Your task to perform on an android device: Check the news Image 0: 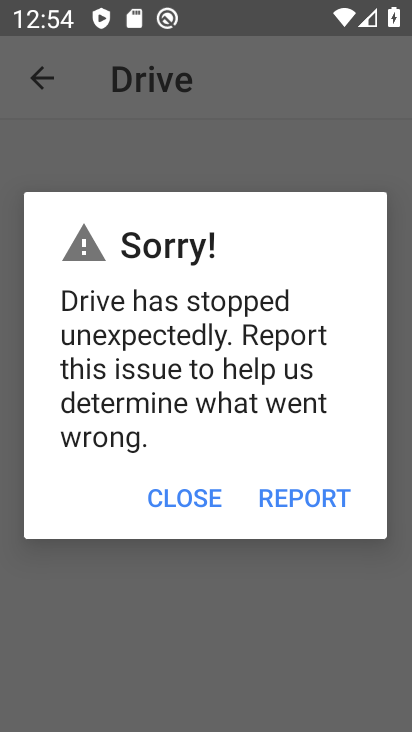
Step 0: click (189, 497)
Your task to perform on an android device: Check the news Image 1: 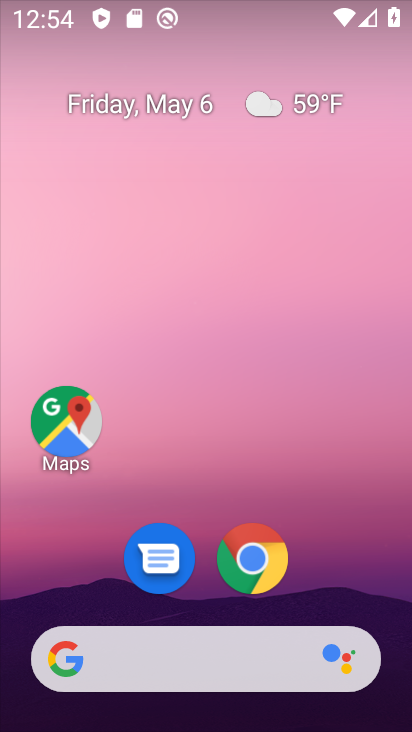
Step 1: task complete